Your task to perform on an android device: Open the calendar and show me this week's events? Image 0: 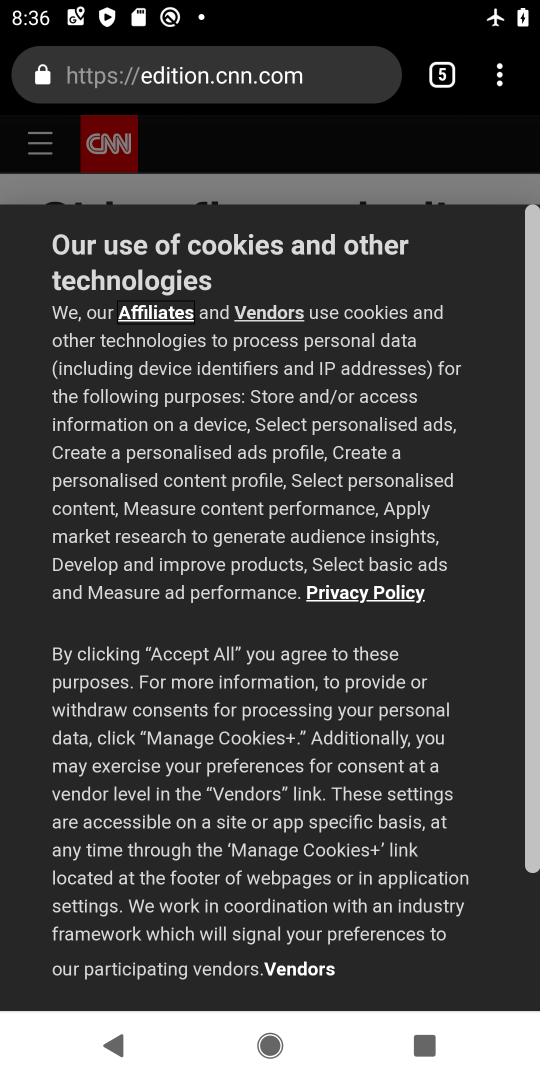
Step 0: press home button
Your task to perform on an android device: Open the calendar and show me this week's events? Image 1: 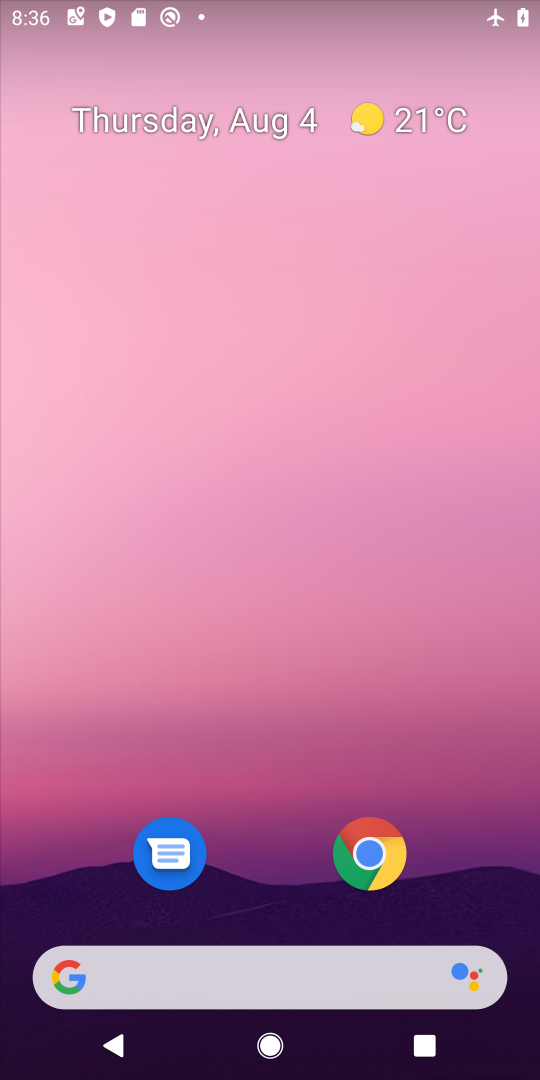
Step 1: drag from (260, 833) to (260, 363)
Your task to perform on an android device: Open the calendar and show me this week's events? Image 2: 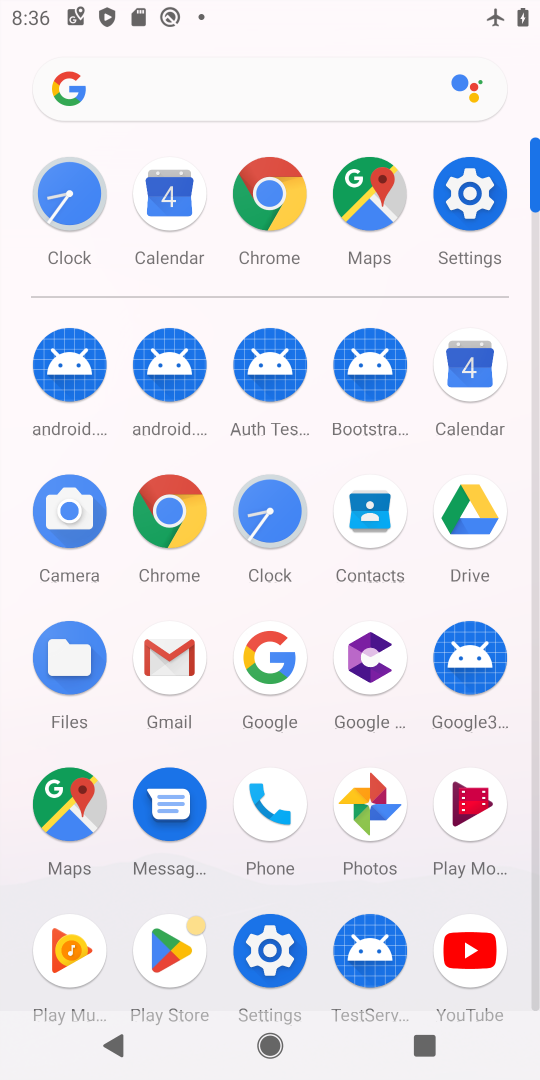
Step 2: click (466, 366)
Your task to perform on an android device: Open the calendar and show me this week's events? Image 3: 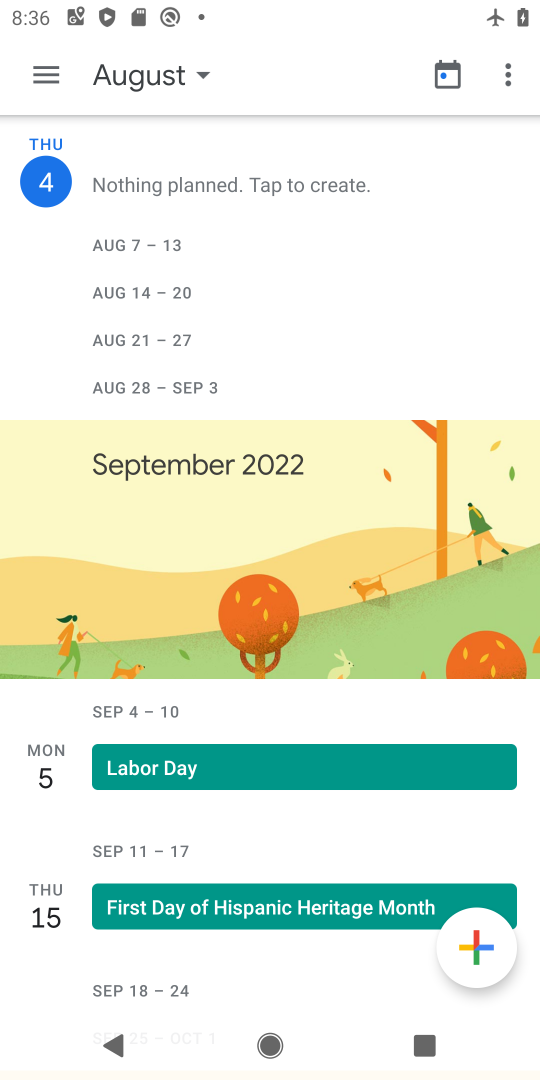
Step 3: click (146, 78)
Your task to perform on an android device: Open the calendar and show me this week's events? Image 4: 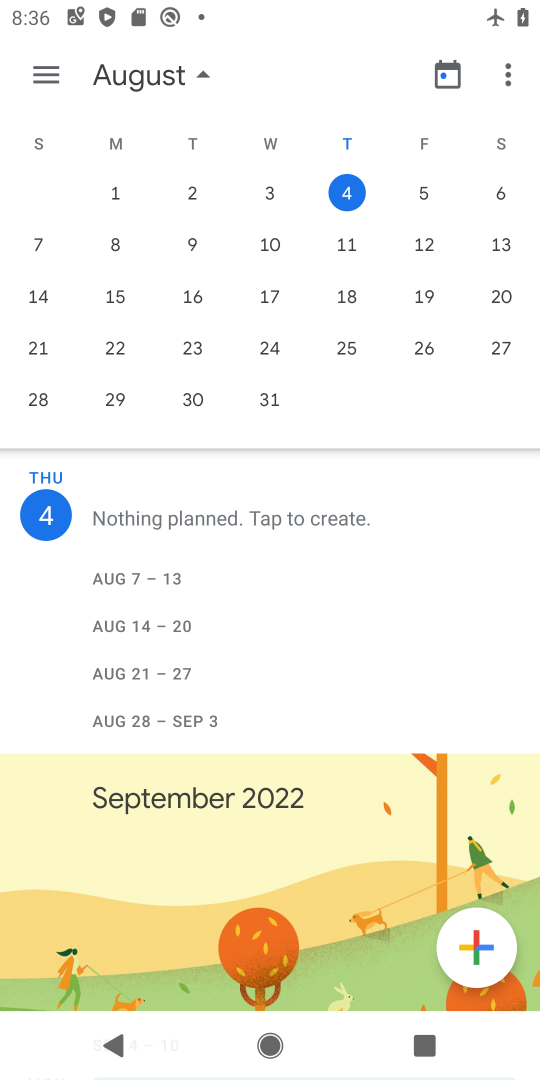
Step 4: click (420, 189)
Your task to perform on an android device: Open the calendar and show me this week's events? Image 5: 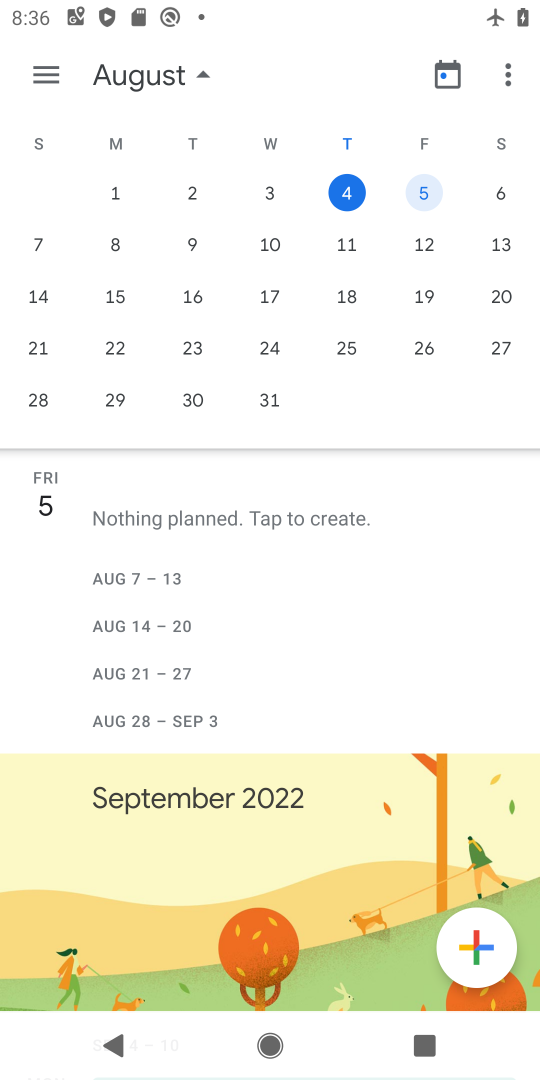
Step 5: click (504, 185)
Your task to perform on an android device: Open the calendar and show me this week's events? Image 6: 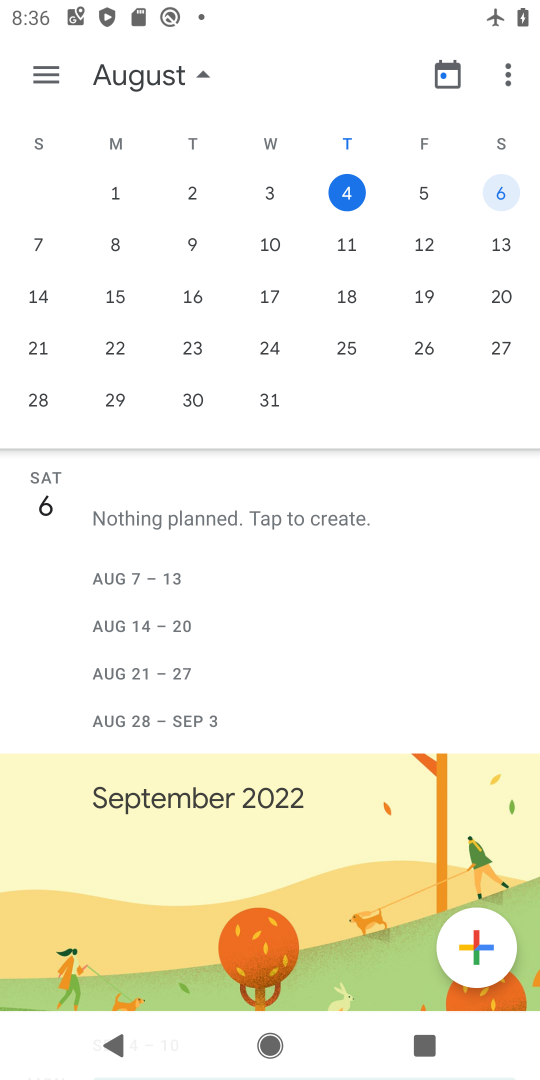
Step 6: click (32, 253)
Your task to perform on an android device: Open the calendar and show me this week's events? Image 7: 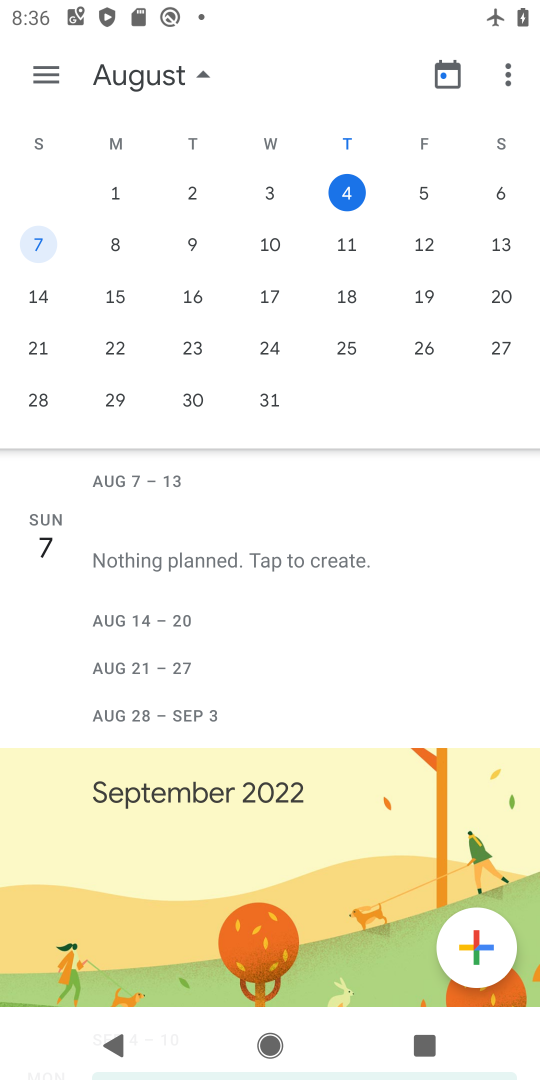
Step 7: task complete